Your task to perform on an android device: find which apps use the phone's location Image 0: 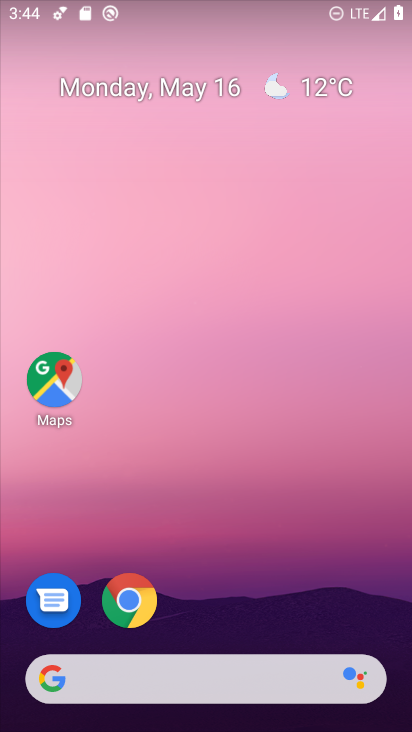
Step 0: drag from (273, 619) to (265, 137)
Your task to perform on an android device: find which apps use the phone's location Image 1: 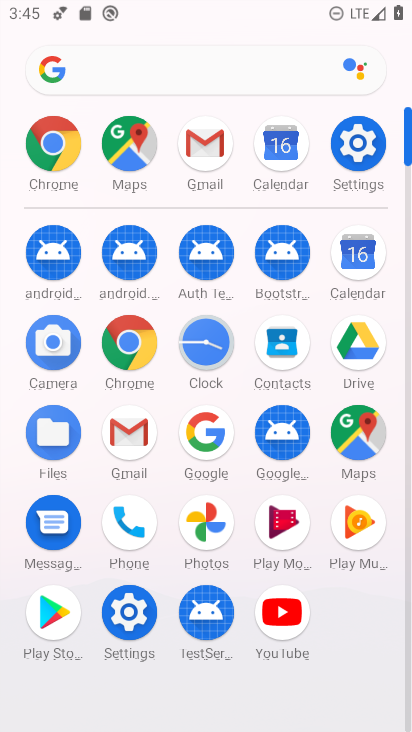
Step 1: click (352, 149)
Your task to perform on an android device: find which apps use the phone's location Image 2: 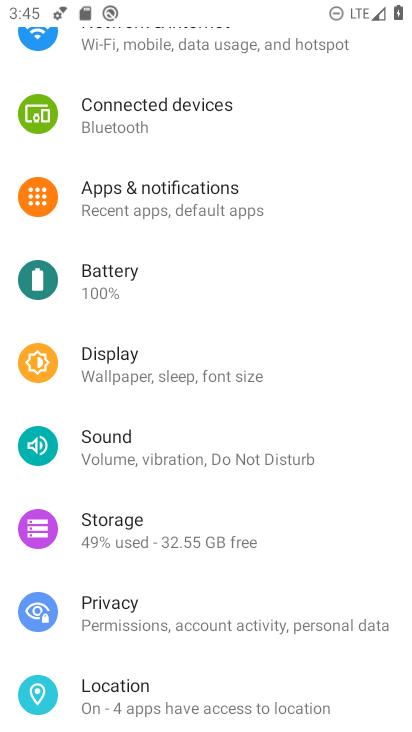
Step 2: click (167, 689)
Your task to perform on an android device: find which apps use the phone's location Image 3: 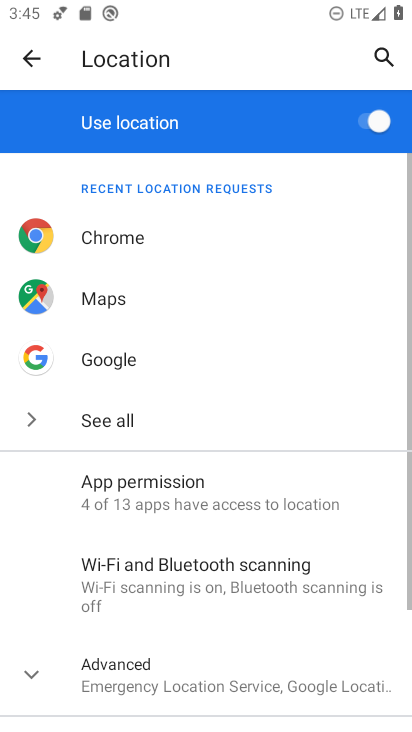
Step 3: drag from (238, 669) to (240, 235)
Your task to perform on an android device: find which apps use the phone's location Image 4: 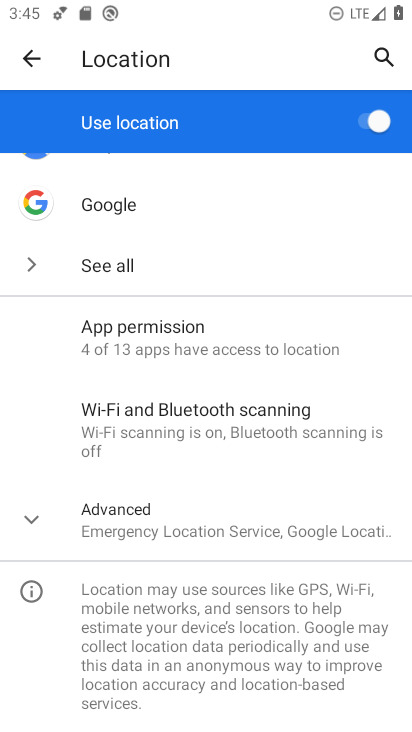
Step 4: click (242, 523)
Your task to perform on an android device: find which apps use the phone's location Image 5: 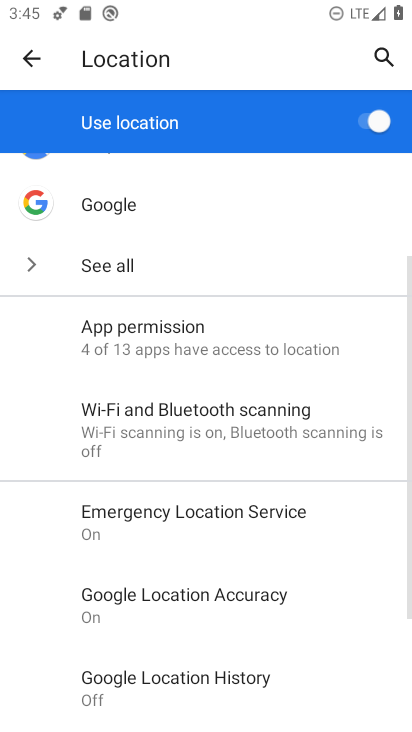
Step 5: drag from (288, 639) to (350, 220)
Your task to perform on an android device: find which apps use the phone's location Image 6: 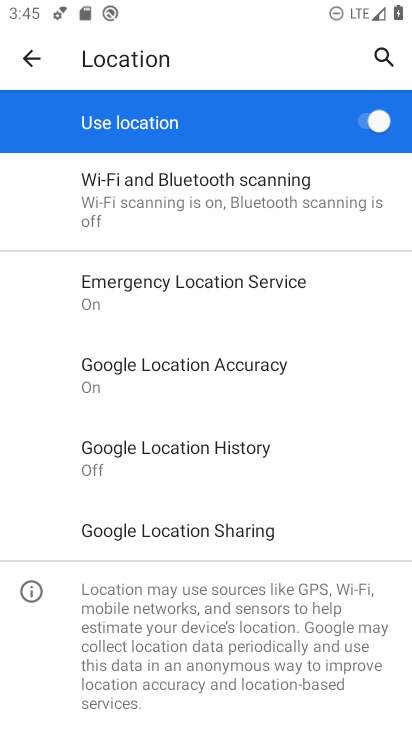
Step 6: drag from (291, 309) to (332, 731)
Your task to perform on an android device: find which apps use the phone's location Image 7: 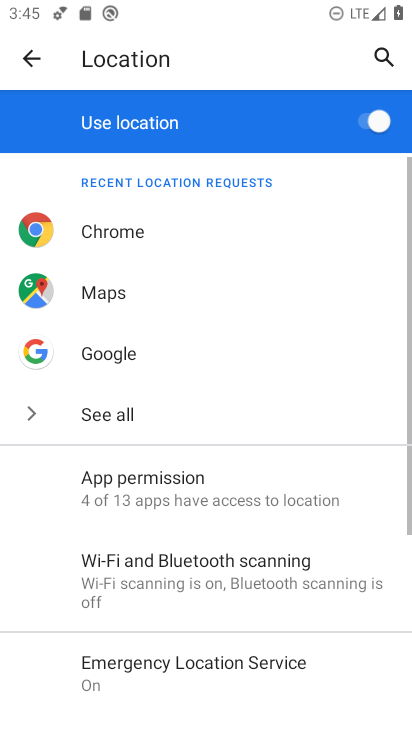
Step 7: click (166, 471)
Your task to perform on an android device: find which apps use the phone's location Image 8: 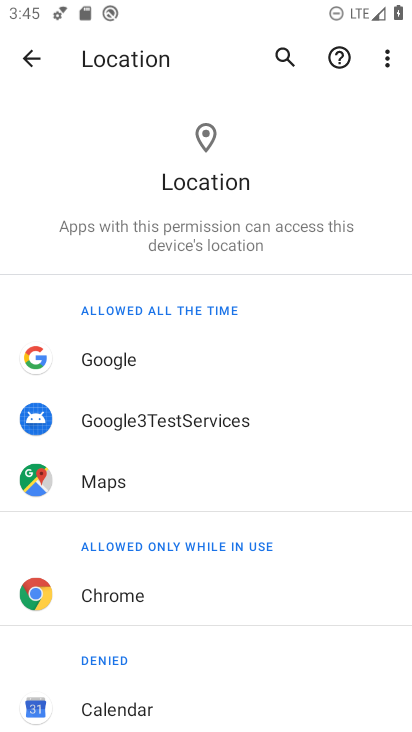
Step 8: task complete